Your task to perform on an android device: View the shopping cart on target. Add "usb-a" to the cart on target, then select checkout. Image 0: 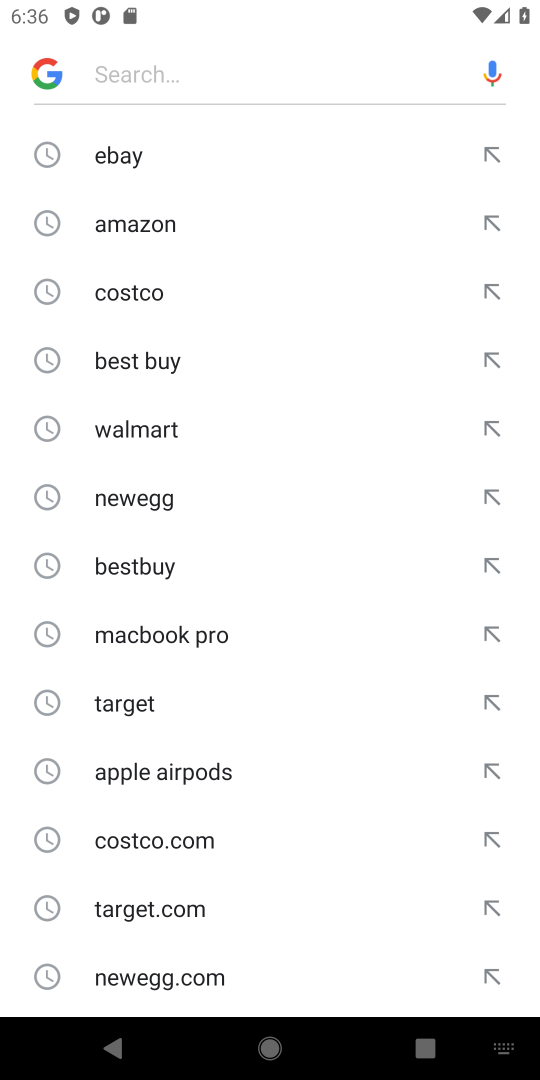
Step 0: press home button
Your task to perform on an android device: View the shopping cart on target. Add "usb-a" to the cart on target, then select checkout. Image 1: 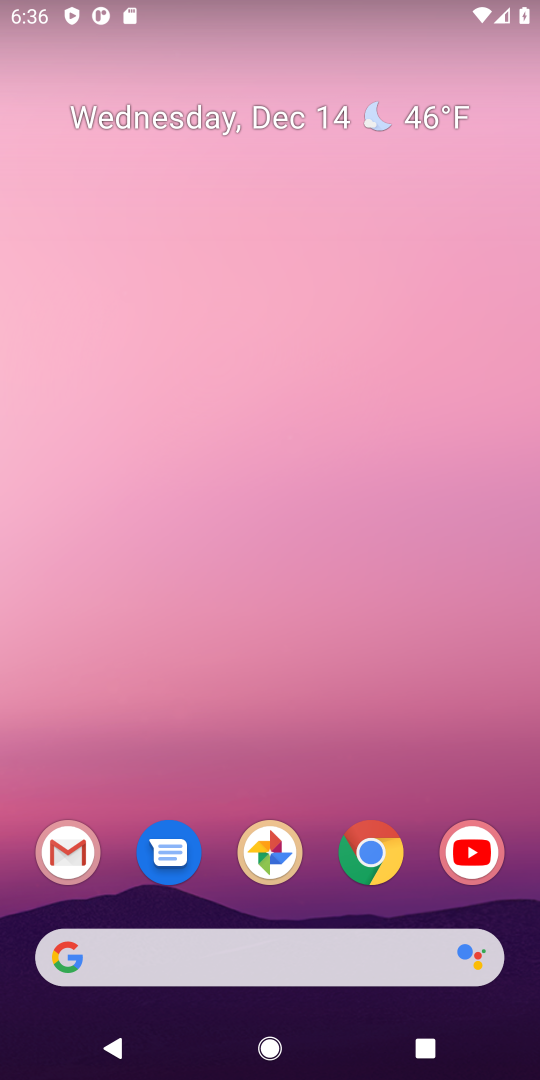
Step 1: click (383, 846)
Your task to perform on an android device: View the shopping cart on target. Add "usb-a" to the cart on target, then select checkout. Image 2: 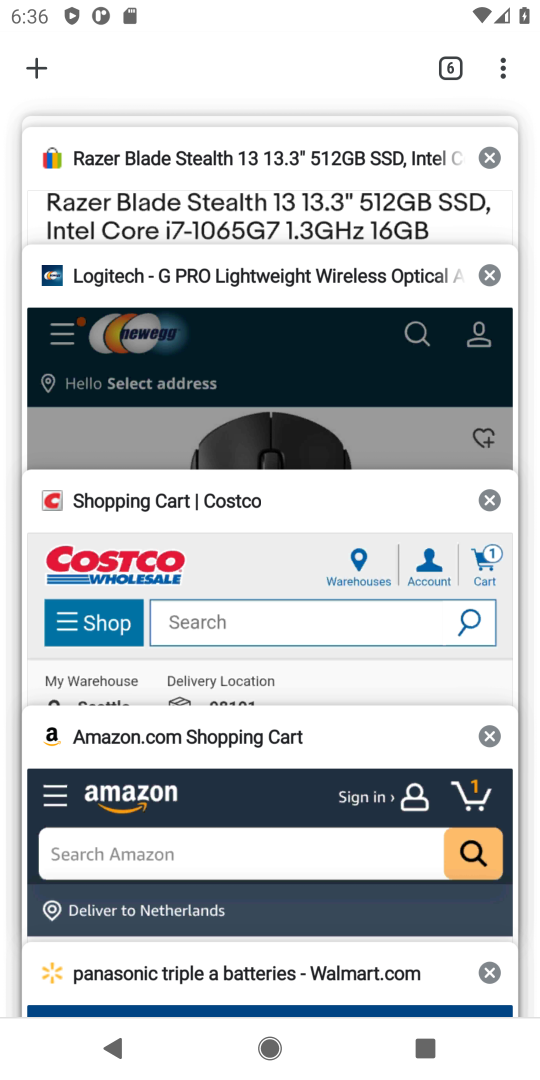
Step 2: drag from (418, 136) to (415, 335)
Your task to perform on an android device: View the shopping cart on target. Add "usb-a" to the cart on target, then select checkout. Image 3: 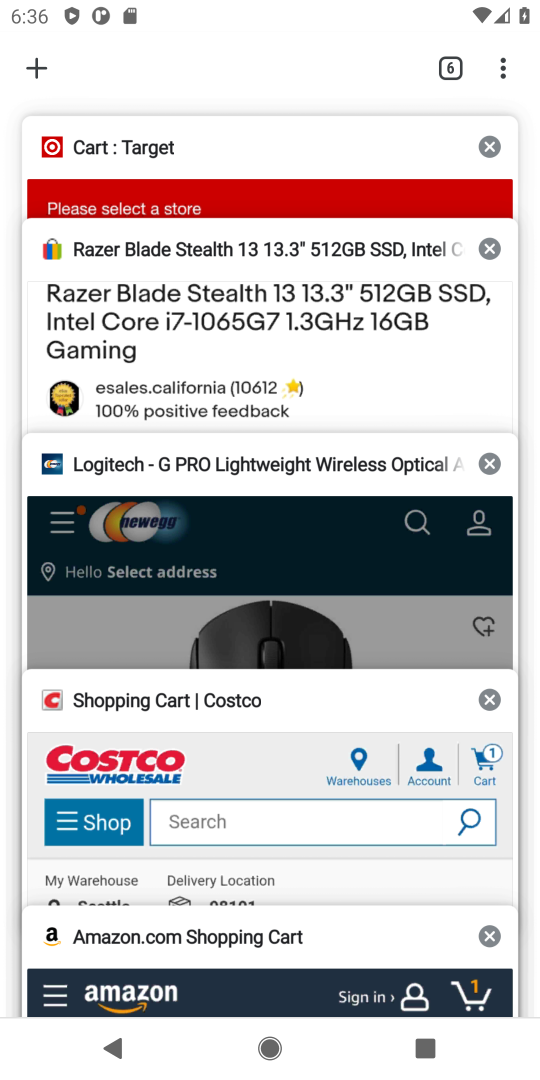
Step 3: click (355, 152)
Your task to perform on an android device: View the shopping cart on target. Add "usb-a" to the cart on target, then select checkout. Image 4: 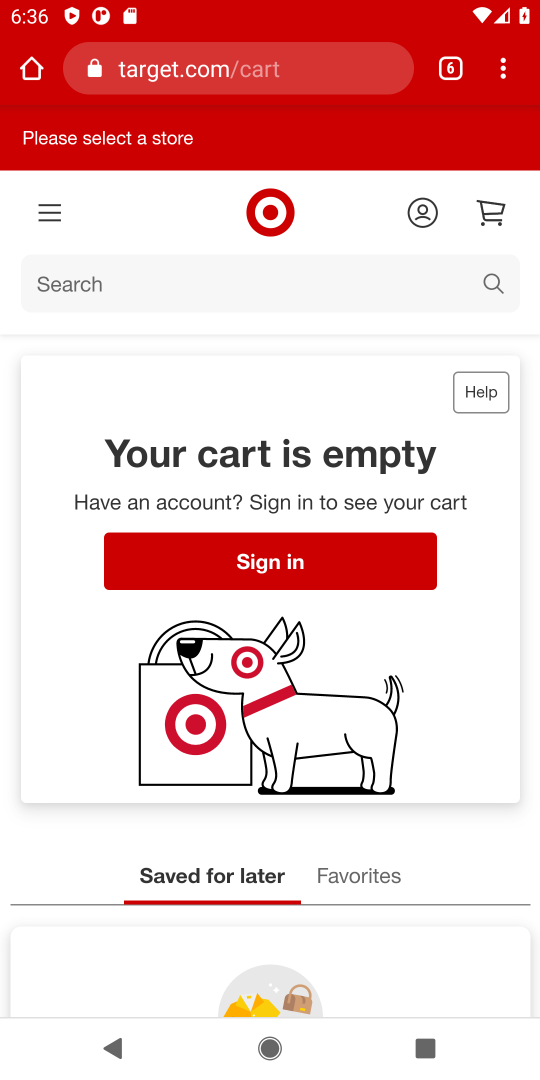
Step 4: click (178, 278)
Your task to perform on an android device: View the shopping cart on target. Add "usb-a" to the cart on target, then select checkout. Image 5: 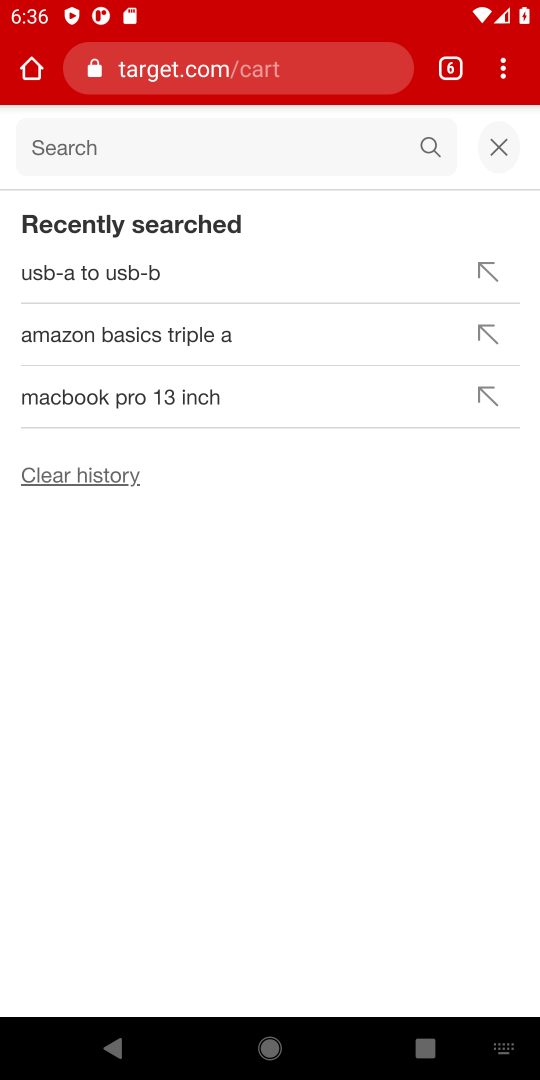
Step 5: type "usb-a"
Your task to perform on an android device: View the shopping cart on target. Add "usb-a" to the cart on target, then select checkout. Image 6: 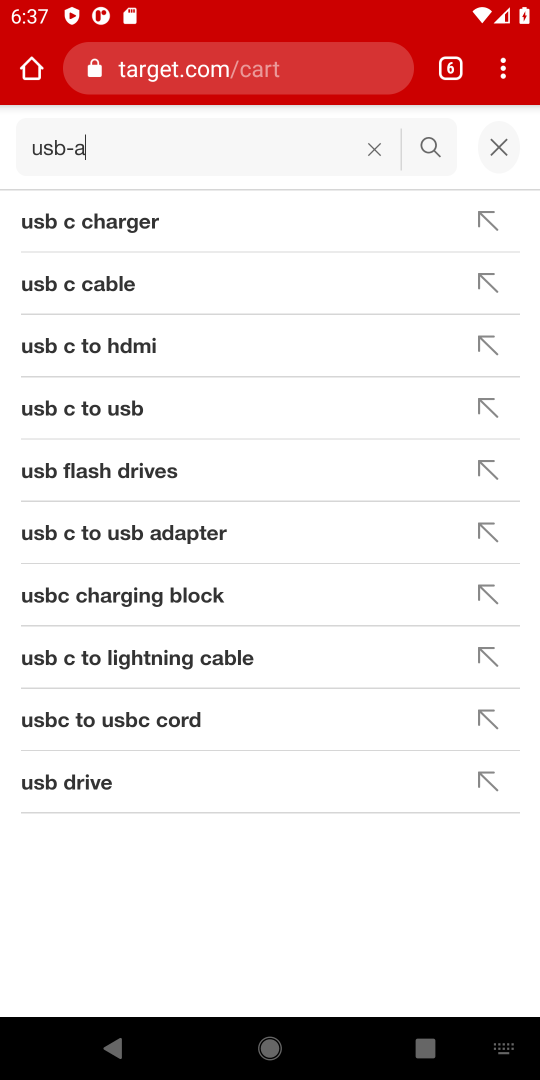
Step 6: click (437, 156)
Your task to perform on an android device: View the shopping cart on target. Add "usb-a" to the cart on target, then select checkout. Image 7: 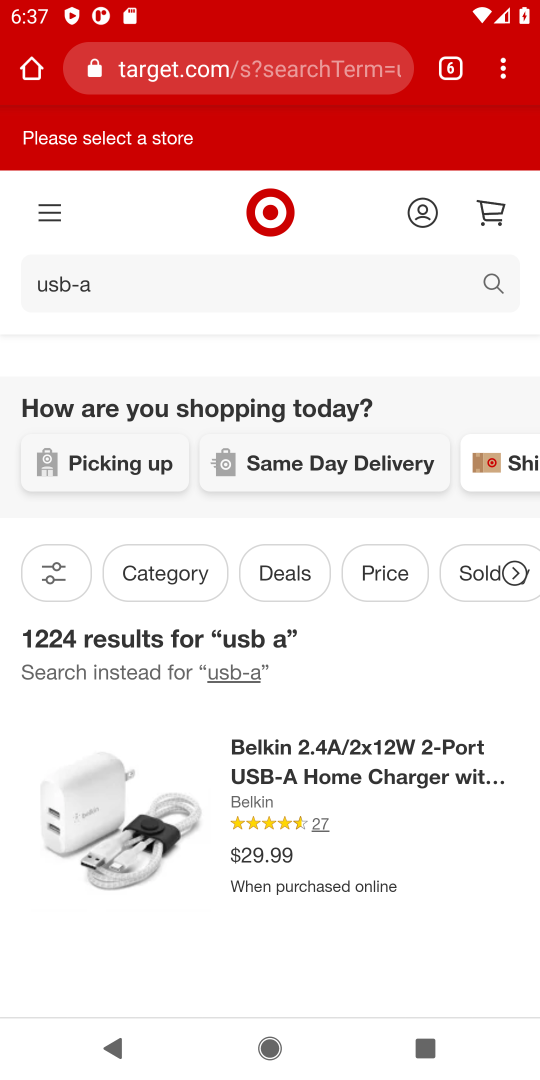
Step 7: drag from (394, 839) to (449, 248)
Your task to perform on an android device: View the shopping cart on target. Add "usb-a" to the cart on target, then select checkout. Image 8: 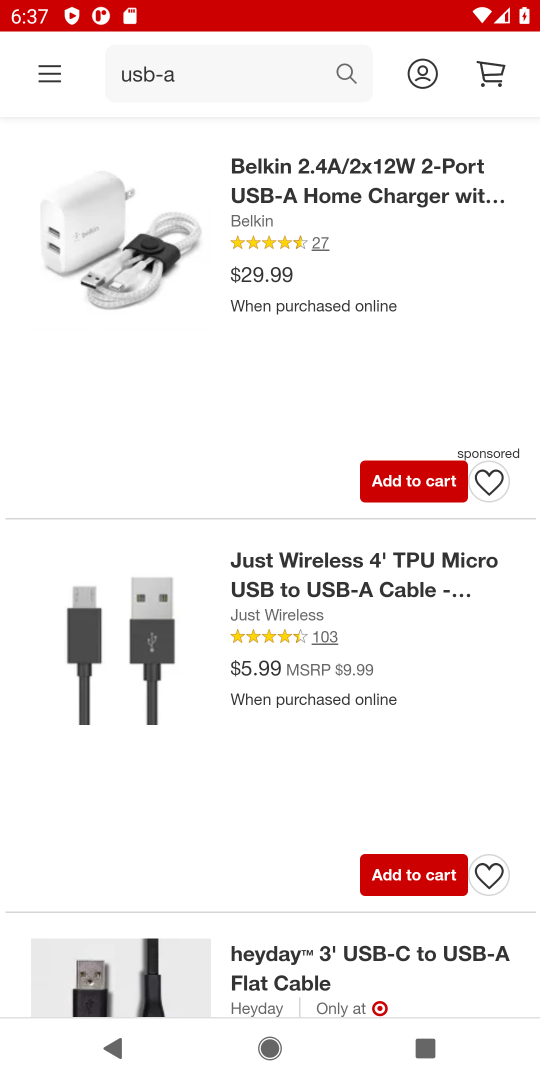
Step 8: click (415, 485)
Your task to perform on an android device: View the shopping cart on target. Add "usb-a" to the cart on target, then select checkout. Image 9: 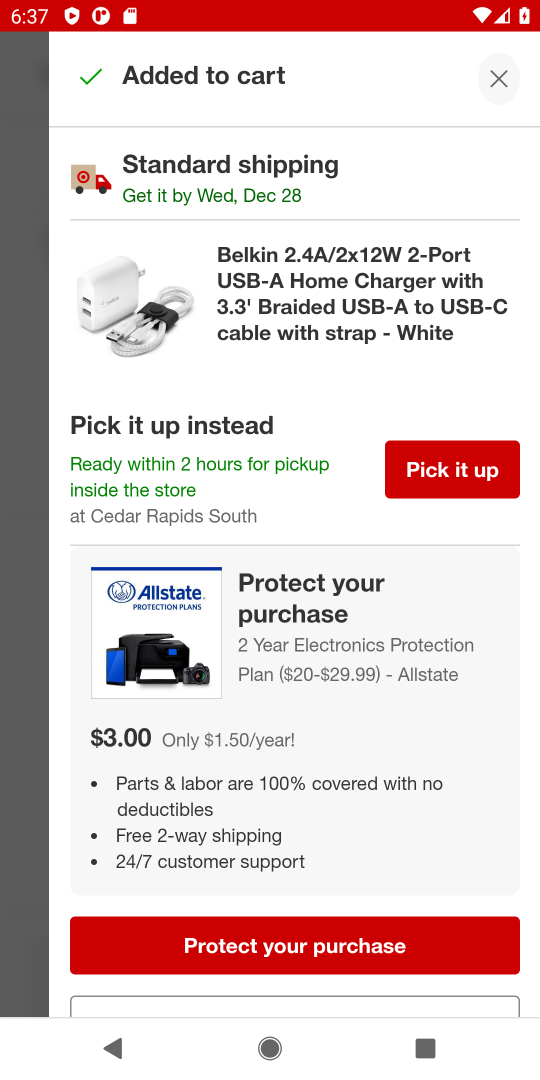
Step 9: task complete